Your task to perform on an android device: set default search engine in the chrome app Image 0: 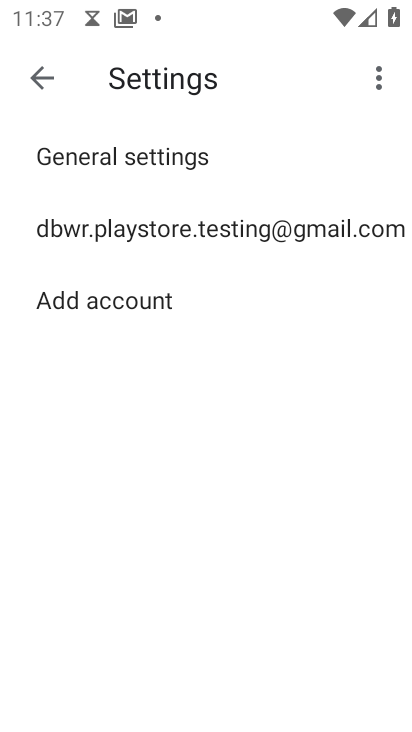
Step 0: press home button
Your task to perform on an android device: set default search engine in the chrome app Image 1: 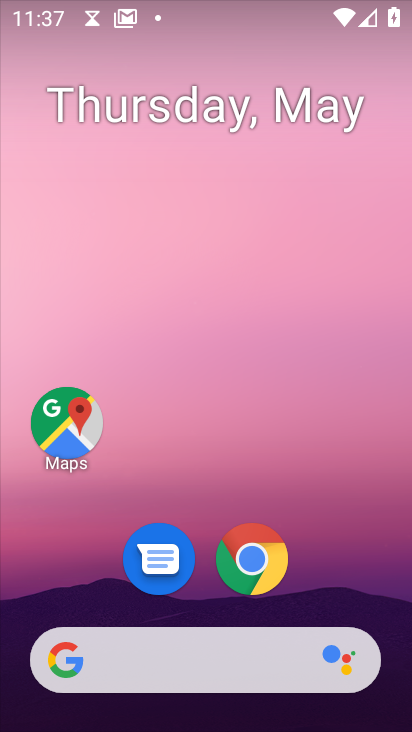
Step 1: click (247, 565)
Your task to perform on an android device: set default search engine in the chrome app Image 2: 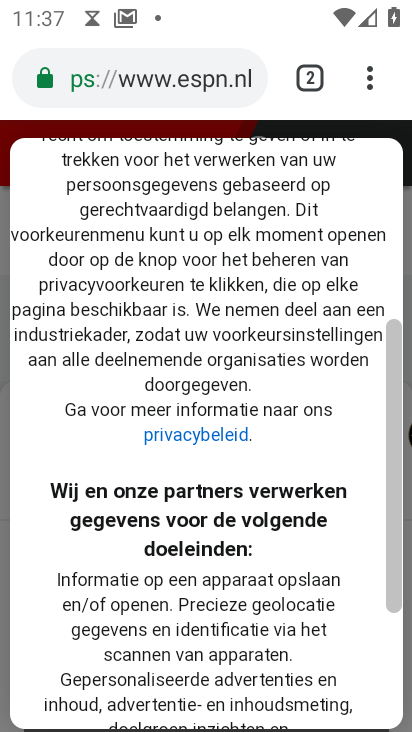
Step 2: drag from (367, 80) to (115, 599)
Your task to perform on an android device: set default search engine in the chrome app Image 3: 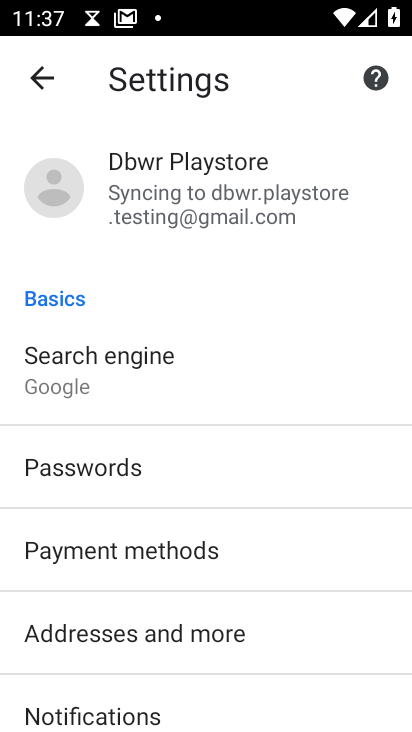
Step 3: drag from (190, 700) to (189, 403)
Your task to perform on an android device: set default search engine in the chrome app Image 4: 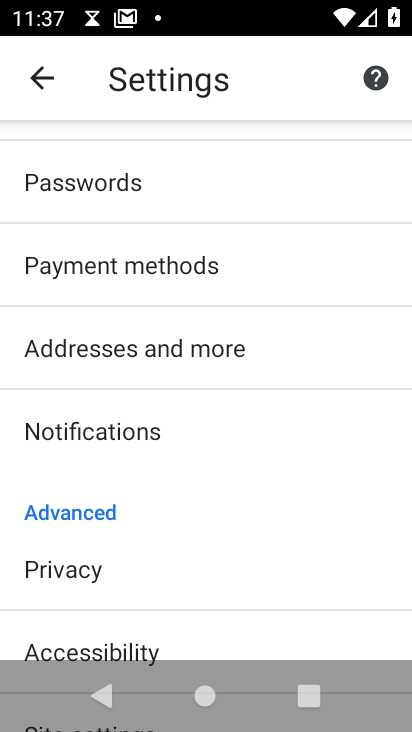
Step 4: drag from (183, 635) to (185, 378)
Your task to perform on an android device: set default search engine in the chrome app Image 5: 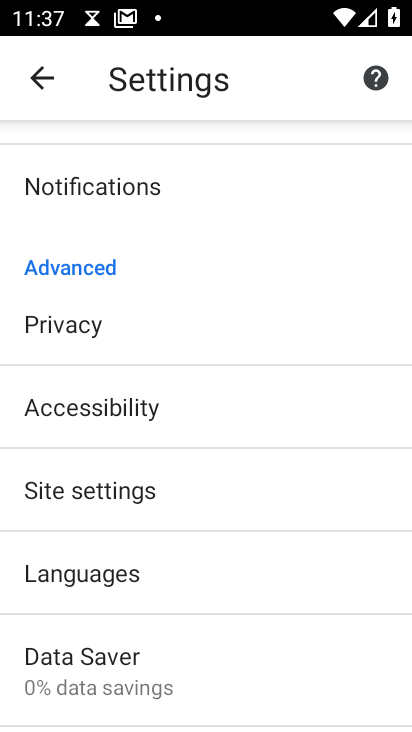
Step 5: drag from (210, 159) to (205, 483)
Your task to perform on an android device: set default search engine in the chrome app Image 6: 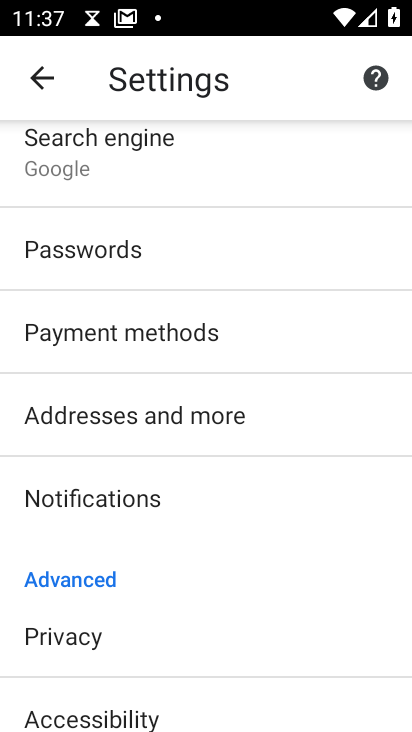
Step 6: click (132, 148)
Your task to perform on an android device: set default search engine in the chrome app Image 7: 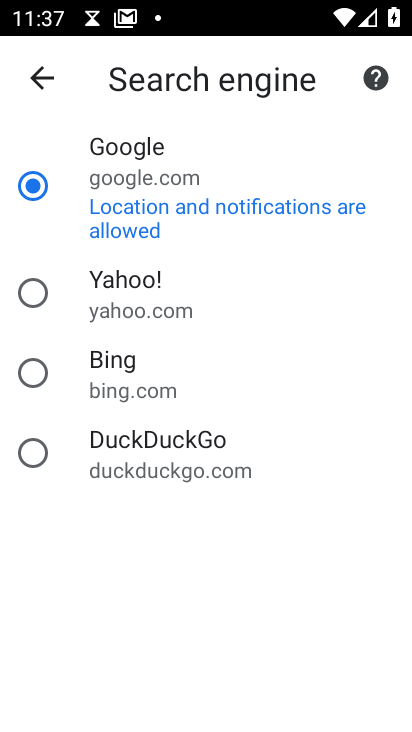
Step 7: click (32, 302)
Your task to perform on an android device: set default search engine in the chrome app Image 8: 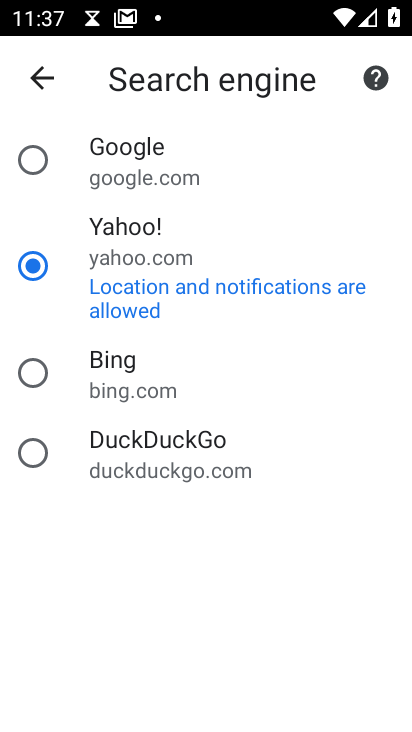
Step 8: task complete